Your task to perform on an android device: Open wifi settings Image 0: 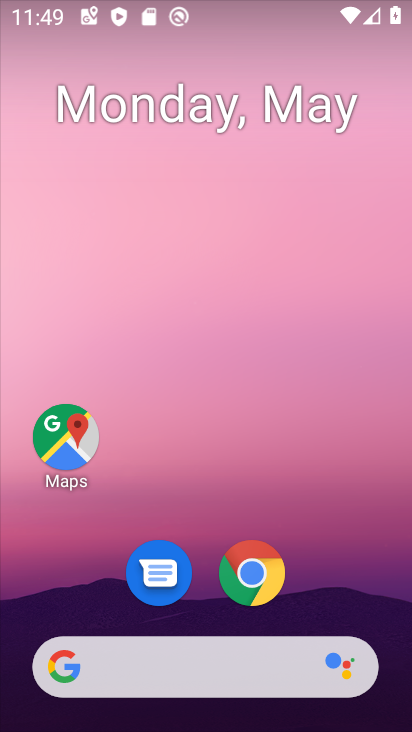
Step 0: drag from (225, 666) to (231, 178)
Your task to perform on an android device: Open wifi settings Image 1: 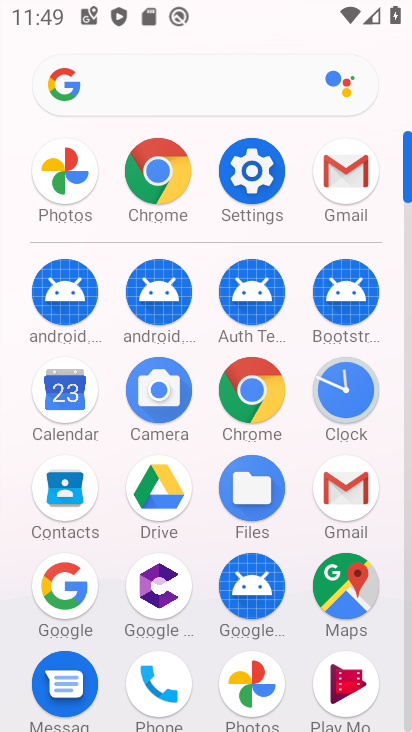
Step 1: click (259, 192)
Your task to perform on an android device: Open wifi settings Image 2: 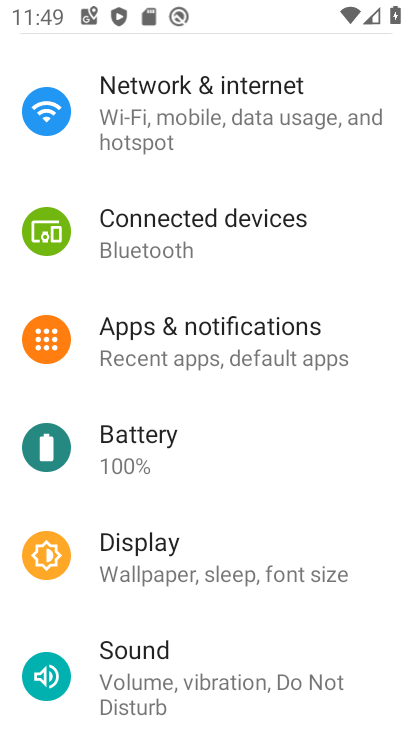
Step 2: drag from (240, 173) to (238, 638)
Your task to perform on an android device: Open wifi settings Image 3: 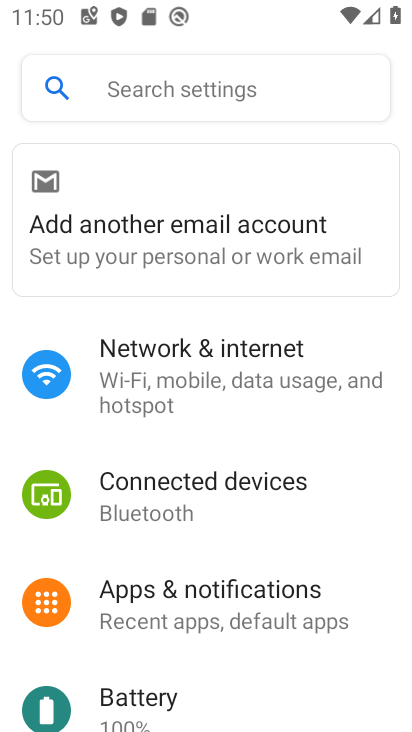
Step 3: click (202, 385)
Your task to perform on an android device: Open wifi settings Image 4: 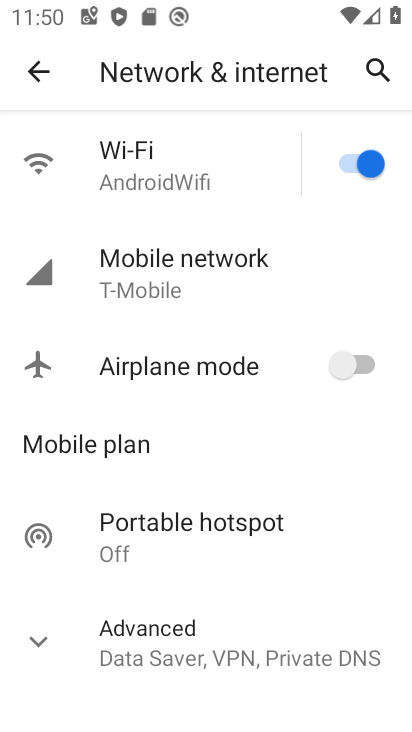
Step 4: click (205, 171)
Your task to perform on an android device: Open wifi settings Image 5: 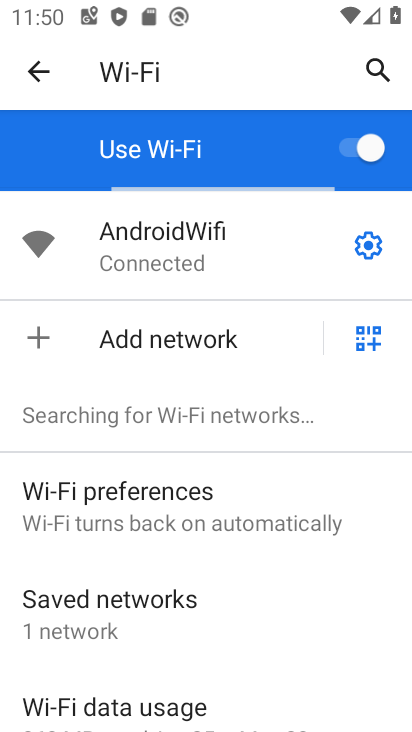
Step 5: task complete